Your task to perform on an android device: clear history in the chrome app Image 0: 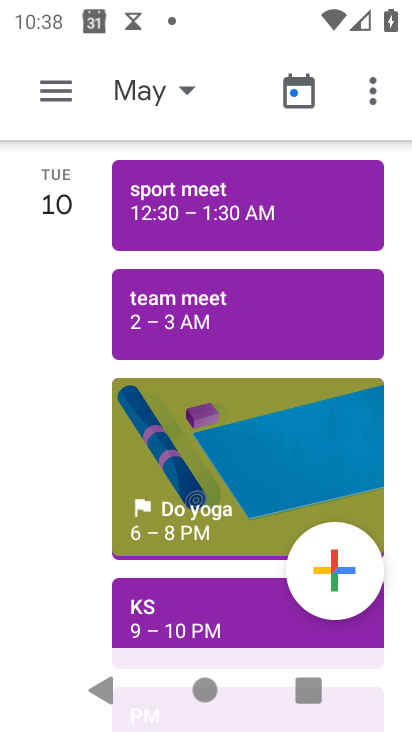
Step 0: press home button
Your task to perform on an android device: clear history in the chrome app Image 1: 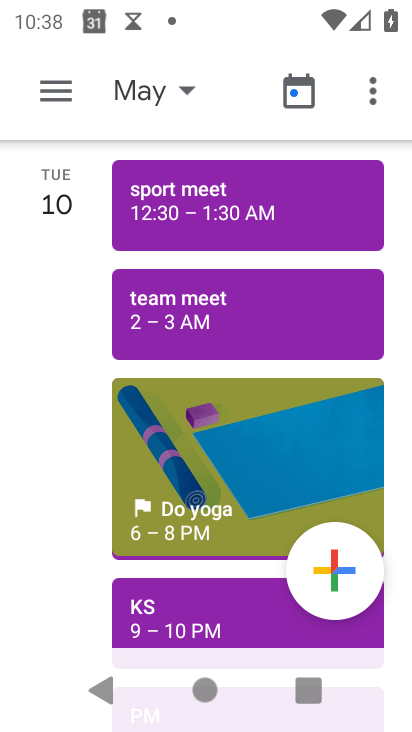
Step 1: press home button
Your task to perform on an android device: clear history in the chrome app Image 2: 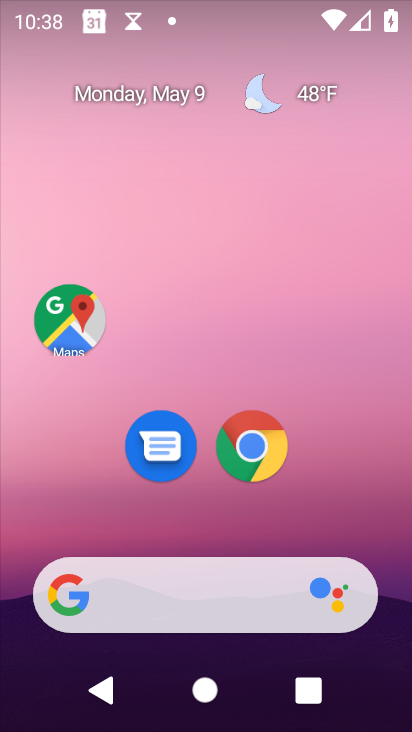
Step 2: click (252, 463)
Your task to perform on an android device: clear history in the chrome app Image 3: 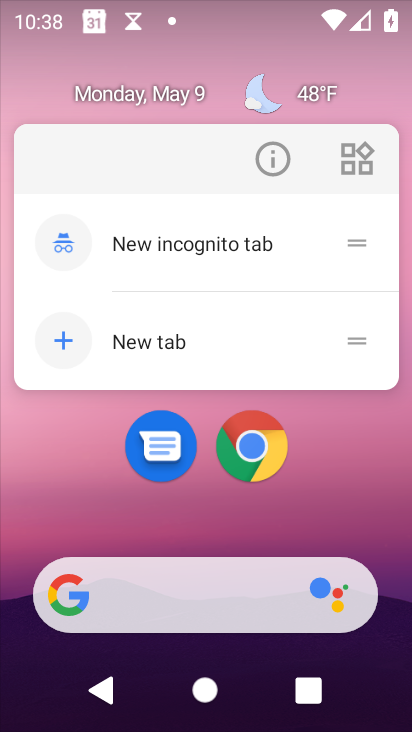
Step 3: click (252, 463)
Your task to perform on an android device: clear history in the chrome app Image 4: 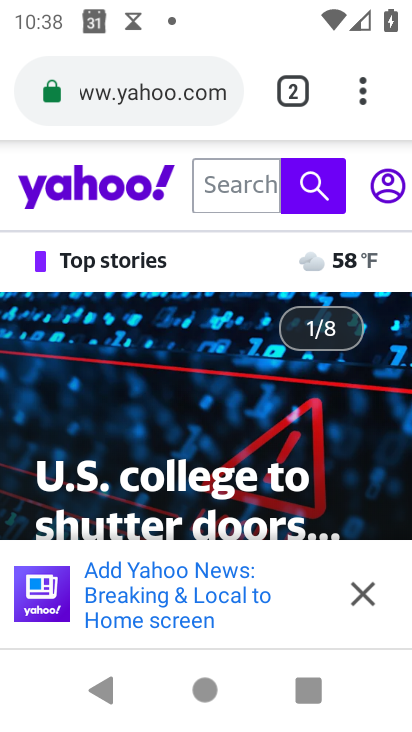
Step 4: click (364, 80)
Your task to perform on an android device: clear history in the chrome app Image 5: 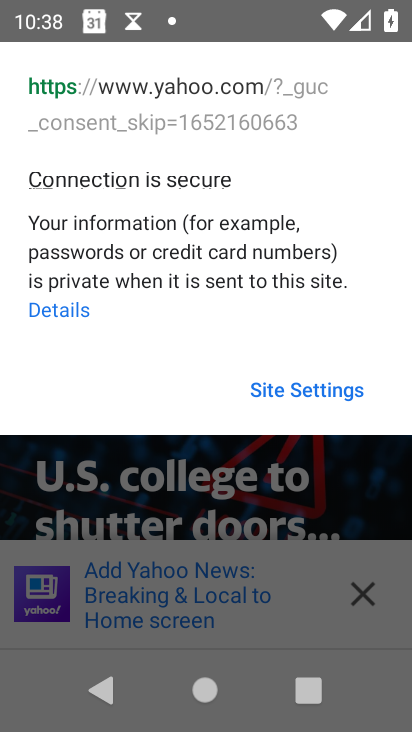
Step 5: click (106, 682)
Your task to perform on an android device: clear history in the chrome app Image 6: 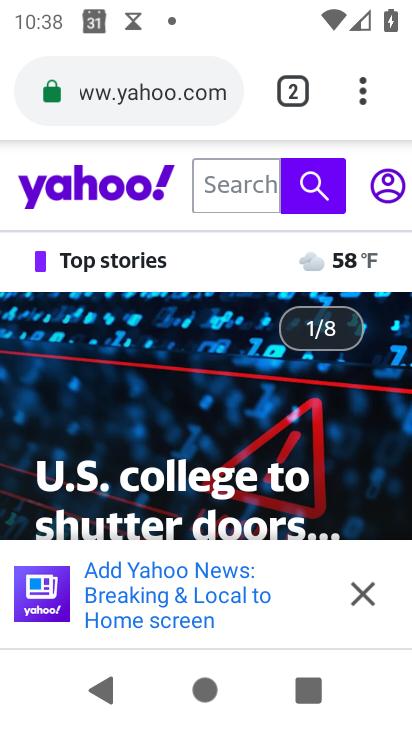
Step 6: click (361, 75)
Your task to perform on an android device: clear history in the chrome app Image 7: 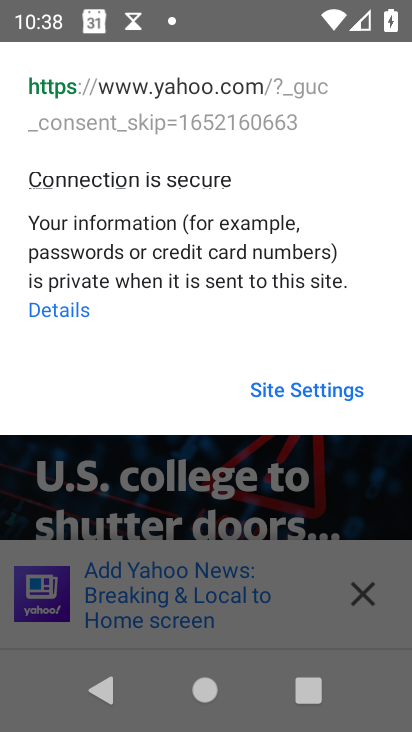
Step 7: click (279, 567)
Your task to perform on an android device: clear history in the chrome app Image 8: 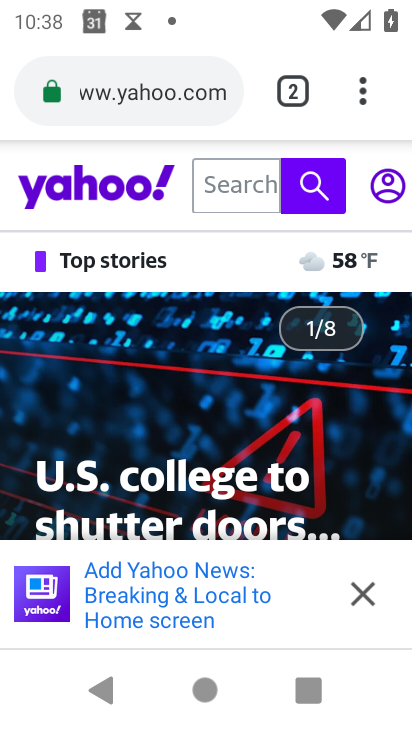
Step 8: click (355, 88)
Your task to perform on an android device: clear history in the chrome app Image 9: 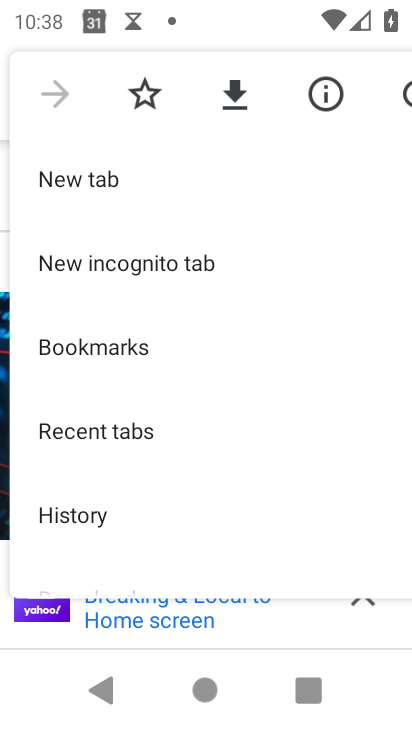
Step 9: drag from (109, 533) to (118, 140)
Your task to perform on an android device: clear history in the chrome app Image 10: 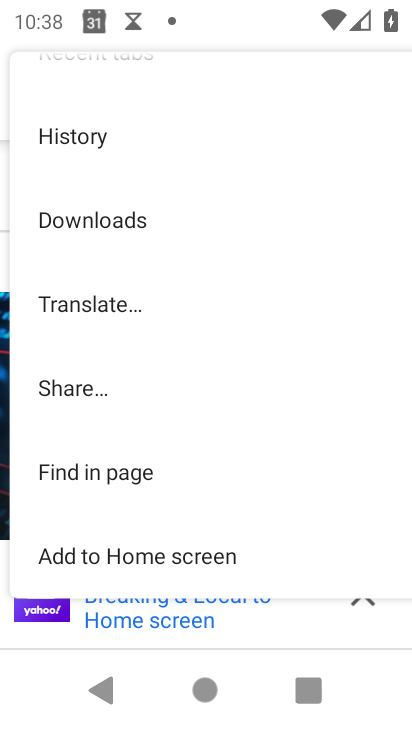
Step 10: drag from (247, 510) to (257, 203)
Your task to perform on an android device: clear history in the chrome app Image 11: 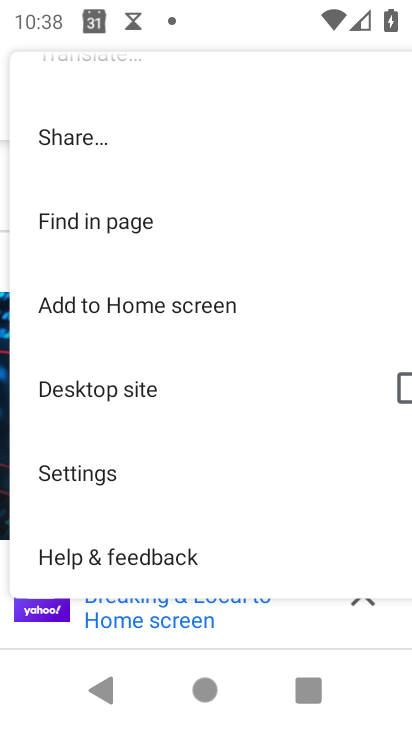
Step 11: drag from (194, 265) to (212, 577)
Your task to perform on an android device: clear history in the chrome app Image 12: 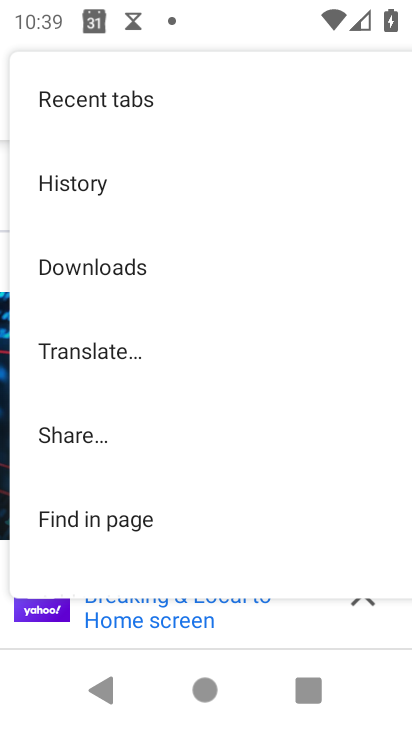
Step 12: click (106, 173)
Your task to perform on an android device: clear history in the chrome app Image 13: 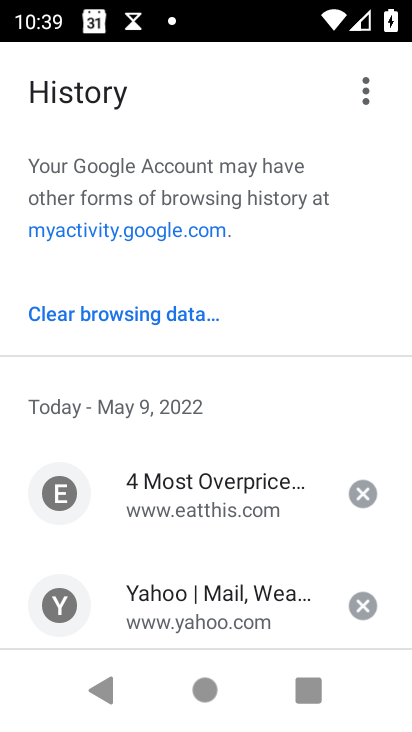
Step 13: click (169, 303)
Your task to perform on an android device: clear history in the chrome app Image 14: 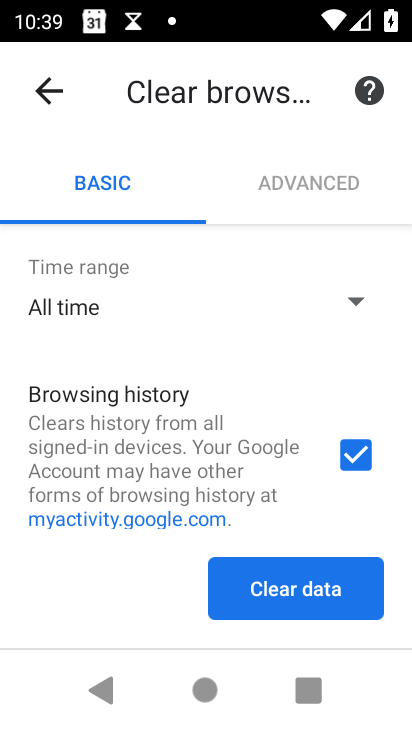
Step 14: click (352, 594)
Your task to perform on an android device: clear history in the chrome app Image 15: 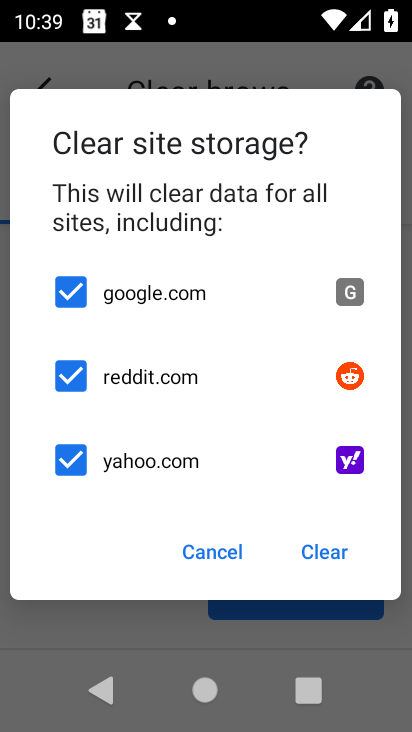
Step 15: click (317, 540)
Your task to perform on an android device: clear history in the chrome app Image 16: 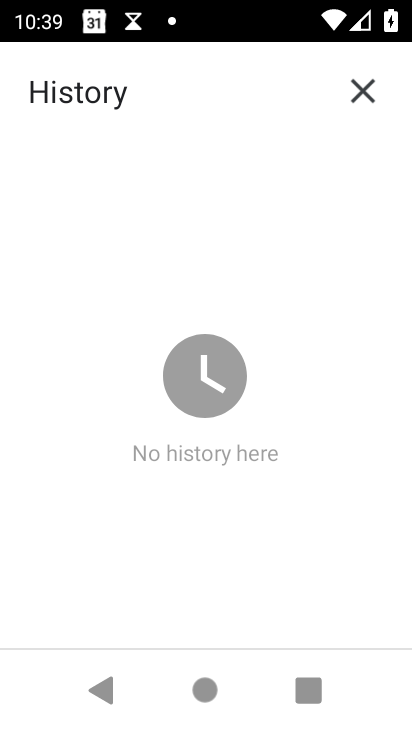
Step 16: task complete